Your task to perform on an android device: Open Google Chrome and open the bookmarks view Image 0: 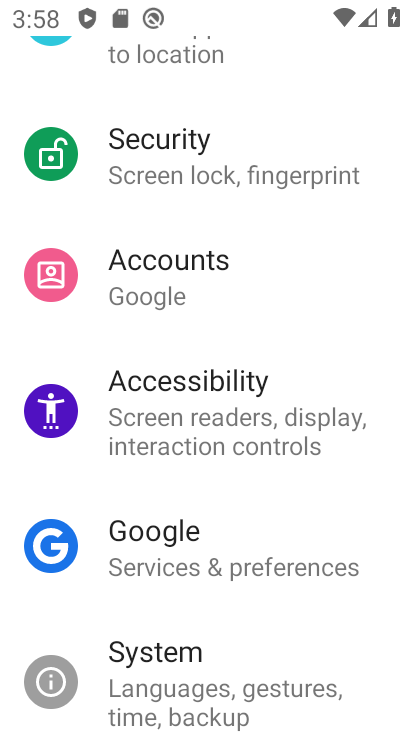
Step 0: drag from (333, 698) to (280, 210)
Your task to perform on an android device: Open Google Chrome and open the bookmarks view Image 1: 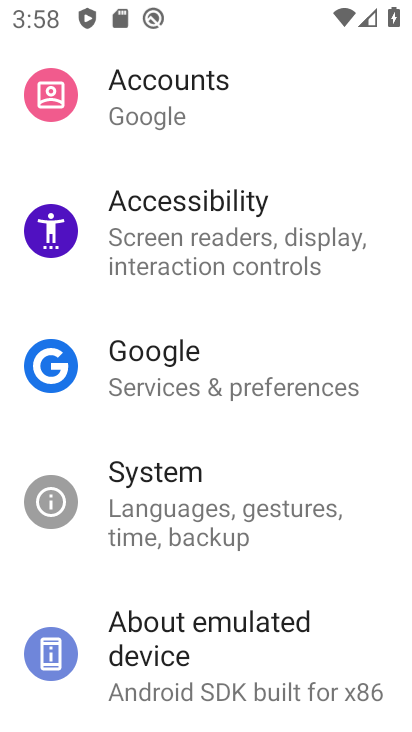
Step 1: press back button
Your task to perform on an android device: Open Google Chrome and open the bookmarks view Image 2: 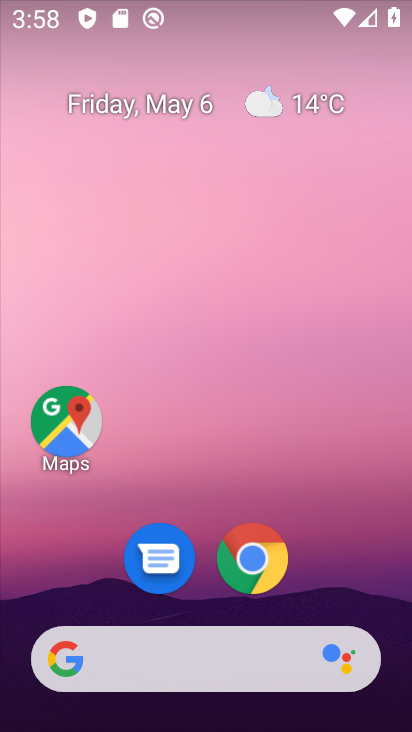
Step 2: drag from (341, 585) to (319, 72)
Your task to perform on an android device: Open Google Chrome and open the bookmarks view Image 3: 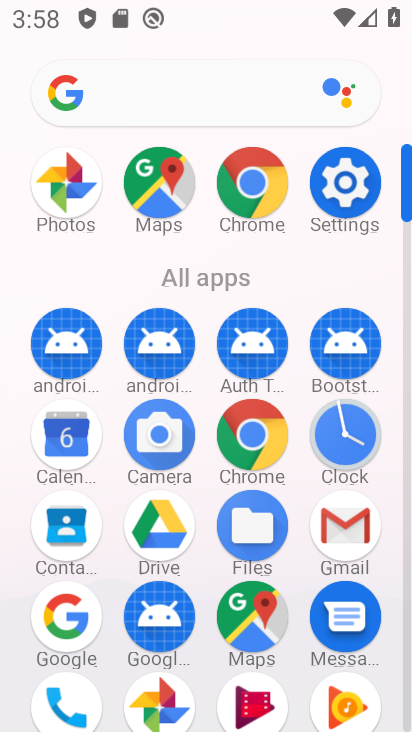
Step 3: click (258, 426)
Your task to perform on an android device: Open Google Chrome and open the bookmarks view Image 4: 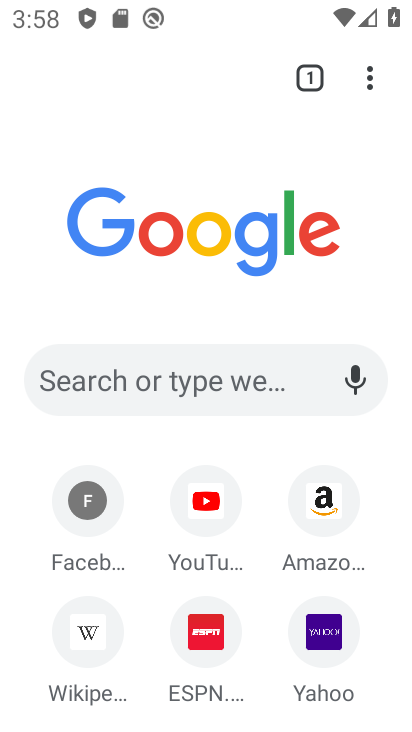
Step 4: task complete